Your task to perform on an android device: turn off airplane mode Image 0: 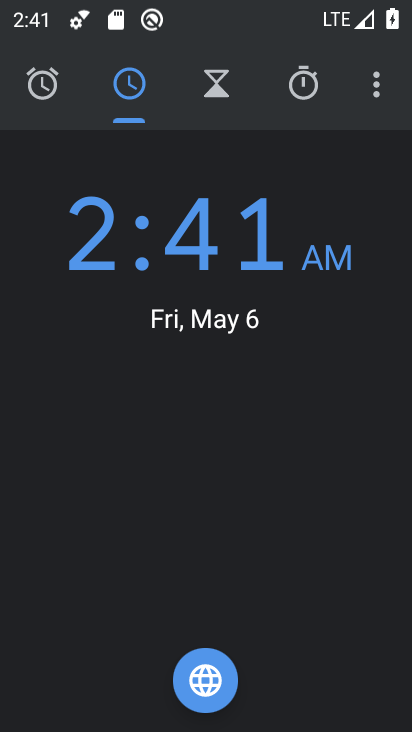
Step 0: press home button
Your task to perform on an android device: turn off airplane mode Image 1: 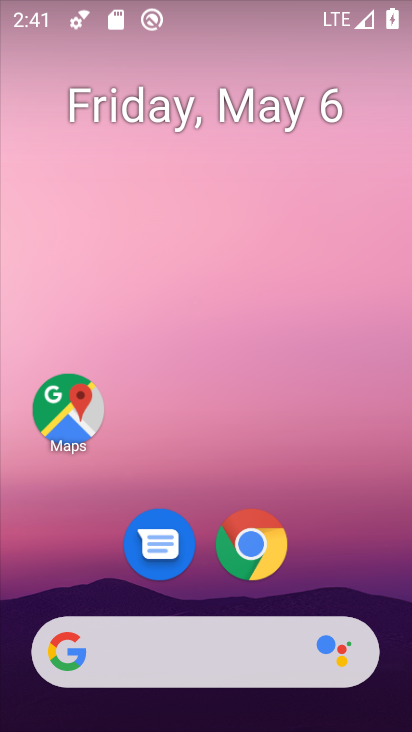
Step 1: drag from (396, 668) to (377, 253)
Your task to perform on an android device: turn off airplane mode Image 2: 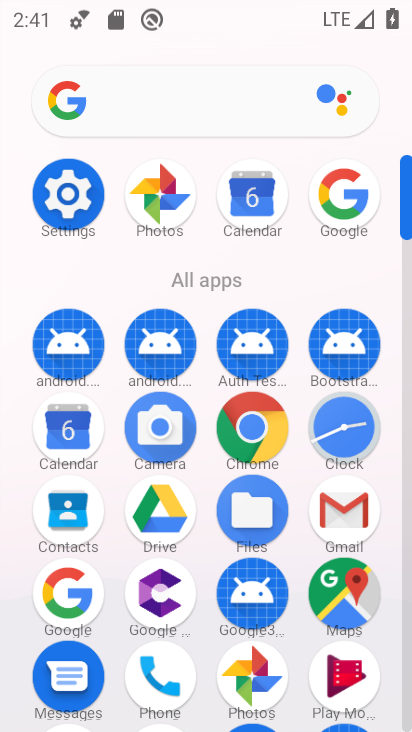
Step 2: click (76, 203)
Your task to perform on an android device: turn off airplane mode Image 3: 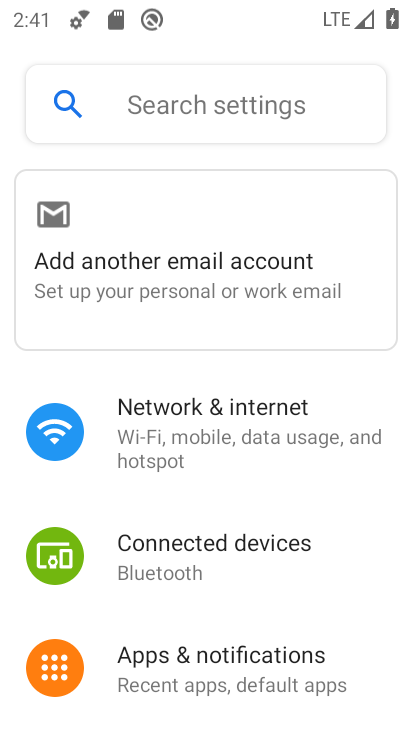
Step 3: click (237, 419)
Your task to perform on an android device: turn off airplane mode Image 4: 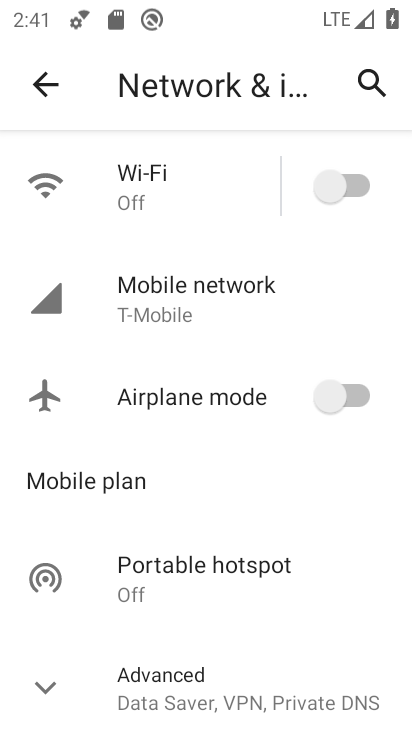
Step 4: task complete